Your task to perform on an android device: turn off location Image 0: 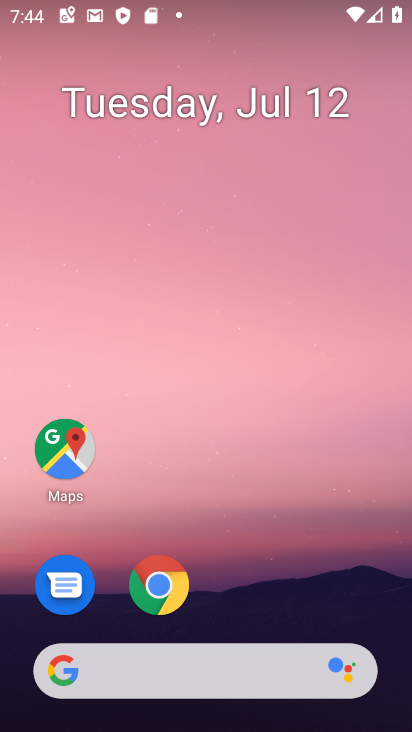
Step 0: drag from (290, 567) to (277, 112)
Your task to perform on an android device: turn off location Image 1: 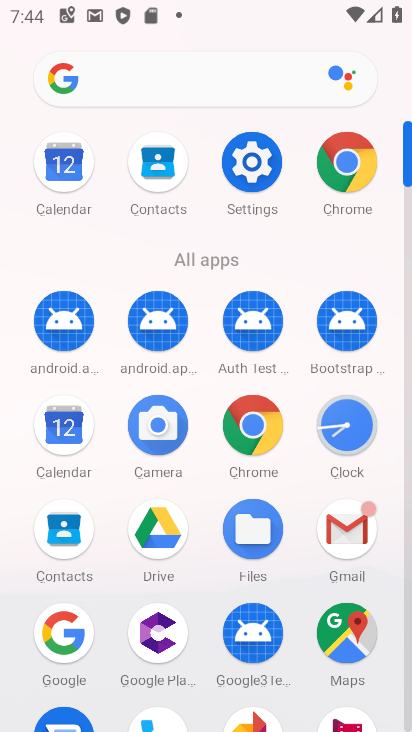
Step 1: click (264, 170)
Your task to perform on an android device: turn off location Image 2: 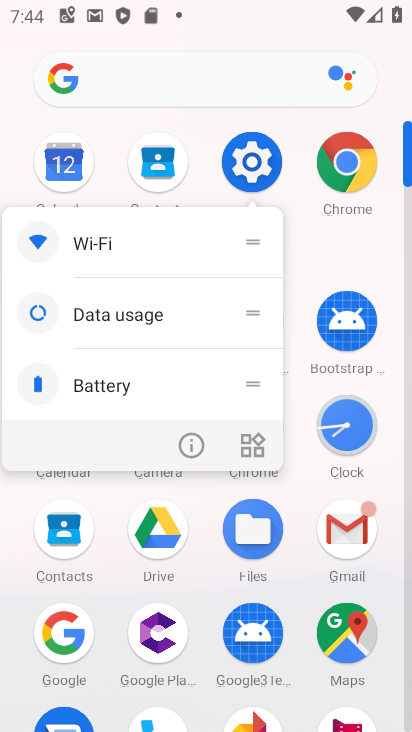
Step 2: click (256, 160)
Your task to perform on an android device: turn off location Image 3: 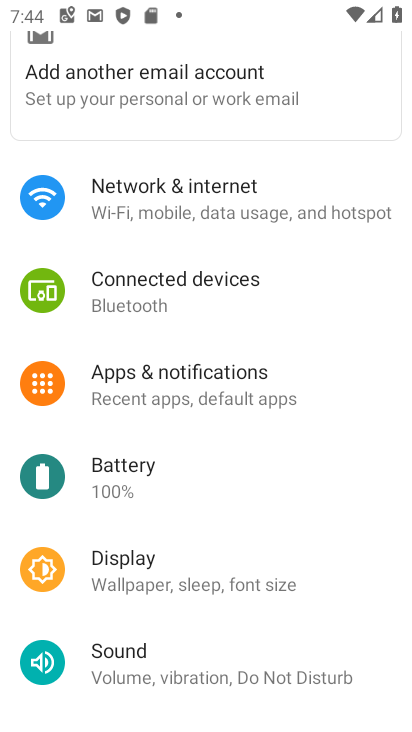
Step 3: drag from (224, 598) to (259, 271)
Your task to perform on an android device: turn off location Image 4: 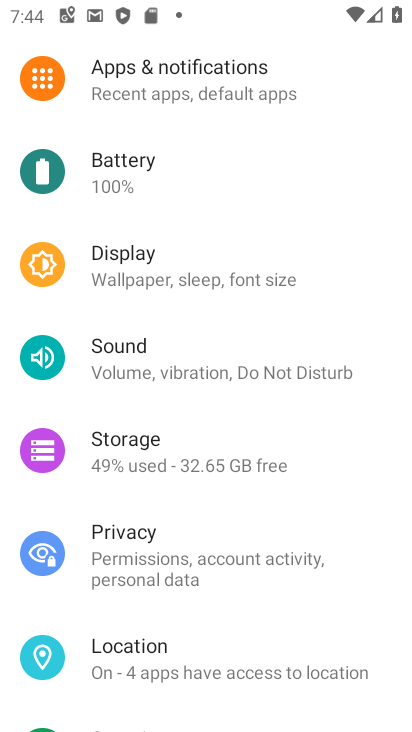
Step 4: drag from (197, 514) to (215, 335)
Your task to perform on an android device: turn off location Image 5: 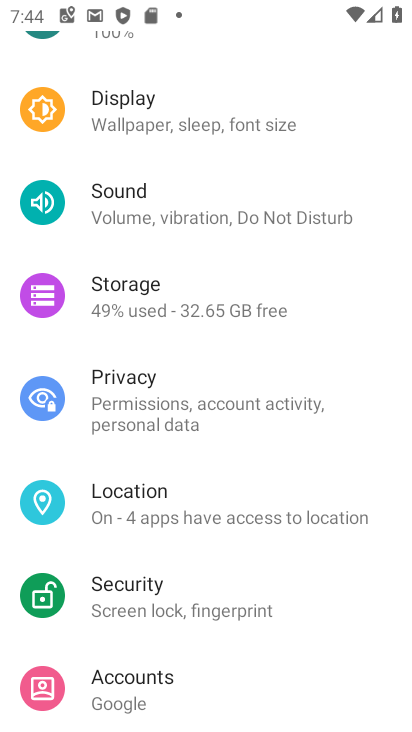
Step 5: click (226, 500)
Your task to perform on an android device: turn off location Image 6: 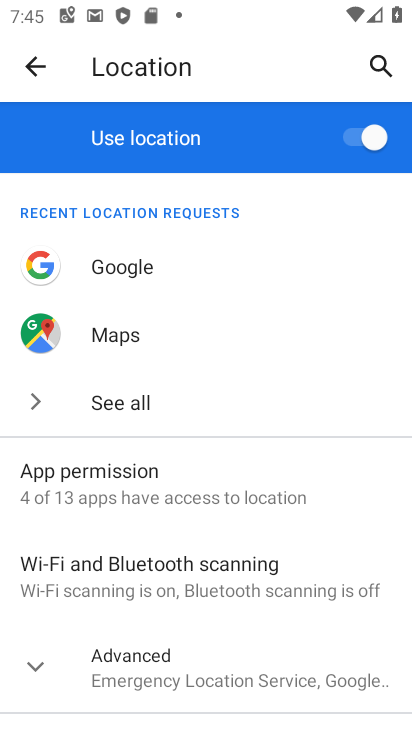
Step 6: click (366, 132)
Your task to perform on an android device: turn off location Image 7: 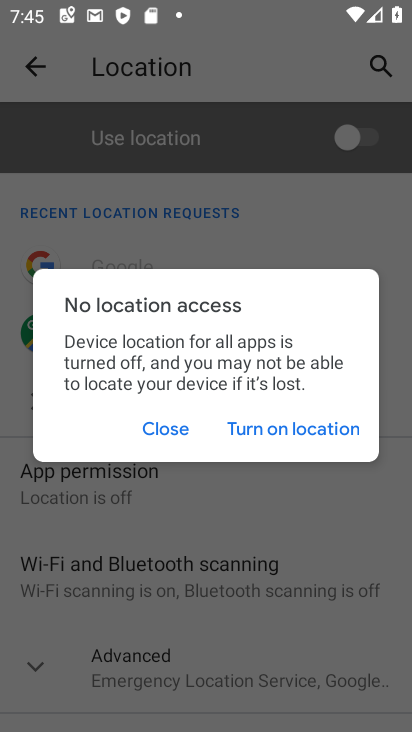
Step 7: click (174, 423)
Your task to perform on an android device: turn off location Image 8: 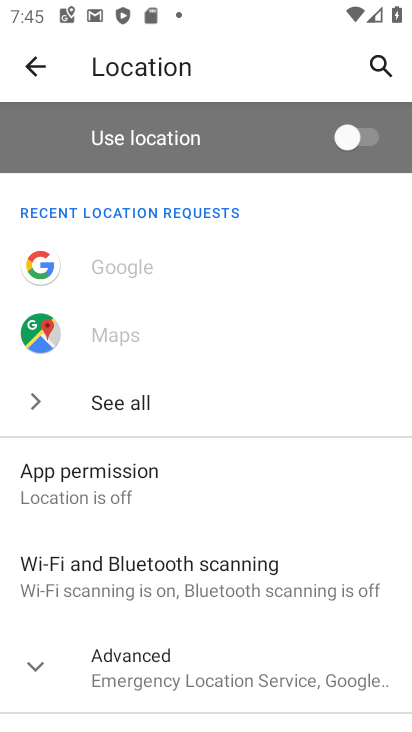
Step 8: task complete